Your task to perform on an android device: Search for seafood restaurants on Google Maps Image 0: 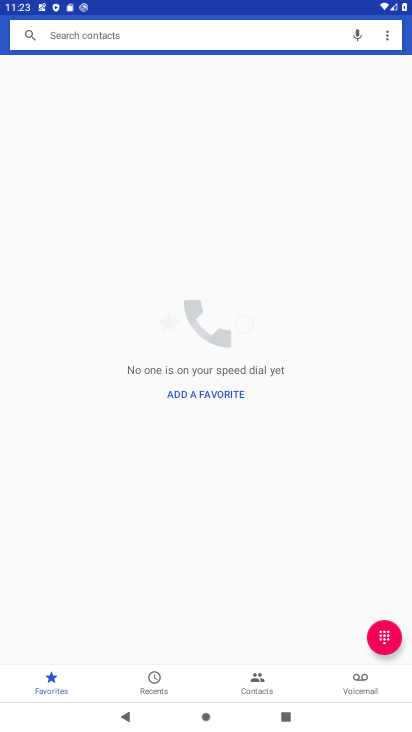
Step 0: press home button
Your task to perform on an android device: Search for seafood restaurants on Google Maps Image 1: 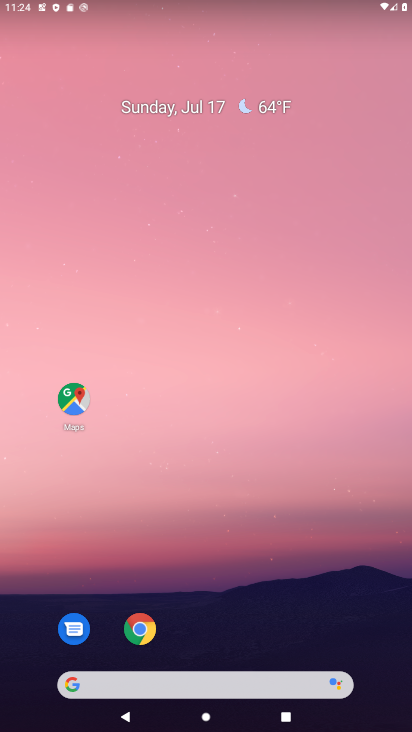
Step 1: click (77, 394)
Your task to perform on an android device: Search for seafood restaurants on Google Maps Image 2: 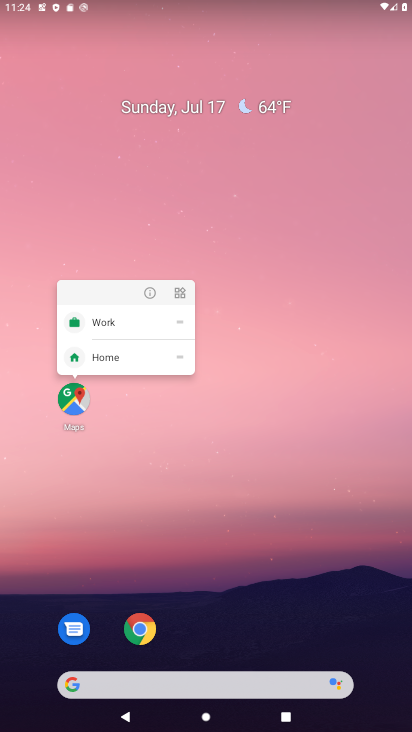
Step 2: click (77, 394)
Your task to perform on an android device: Search for seafood restaurants on Google Maps Image 3: 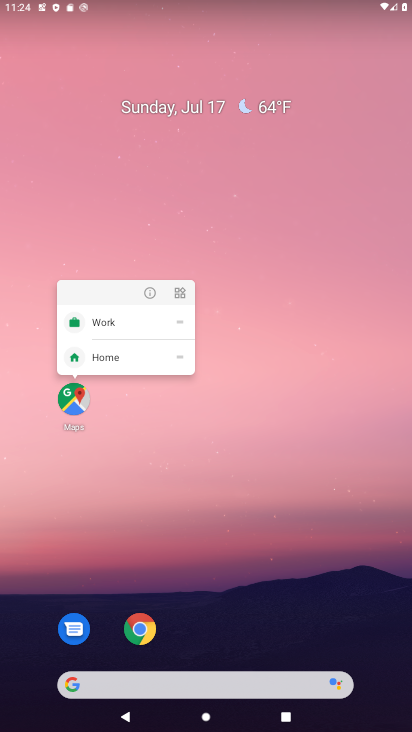
Step 3: click (77, 394)
Your task to perform on an android device: Search for seafood restaurants on Google Maps Image 4: 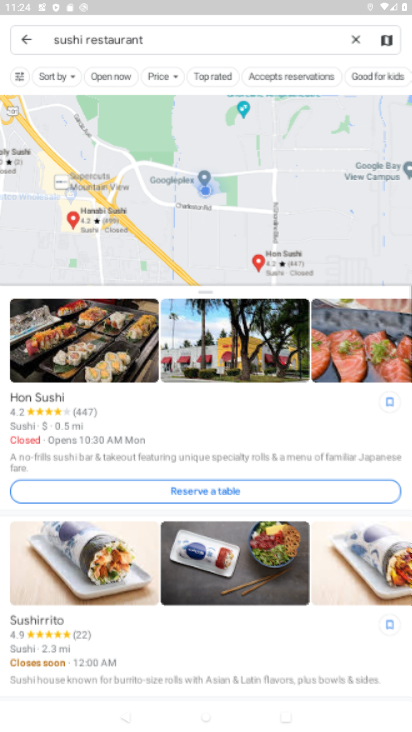
Step 4: click (359, 42)
Your task to perform on an android device: Search for seafood restaurants on Google Maps Image 5: 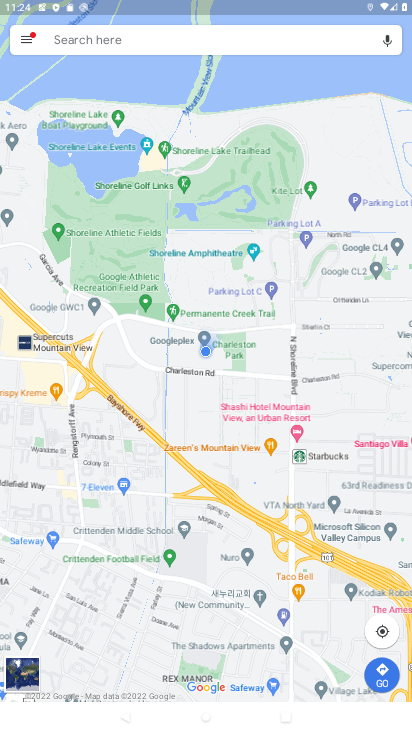
Step 5: click (229, 33)
Your task to perform on an android device: Search for seafood restaurants on Google Maps Image 6: 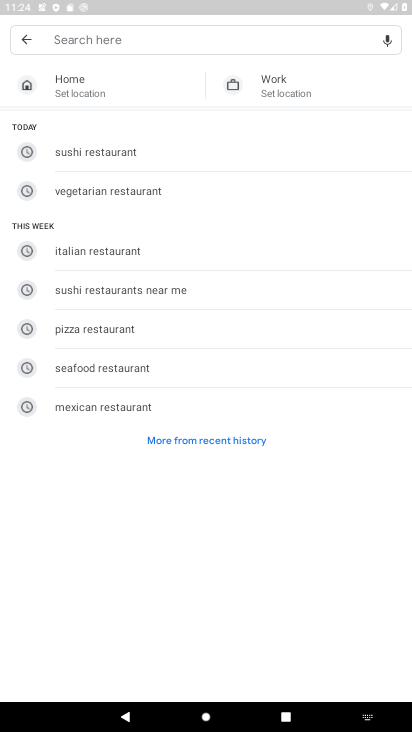
Step 6: type "seafood restaurants "
Your task to perform on an android device: Search for seafood restaurants on Google Maps Image 7: 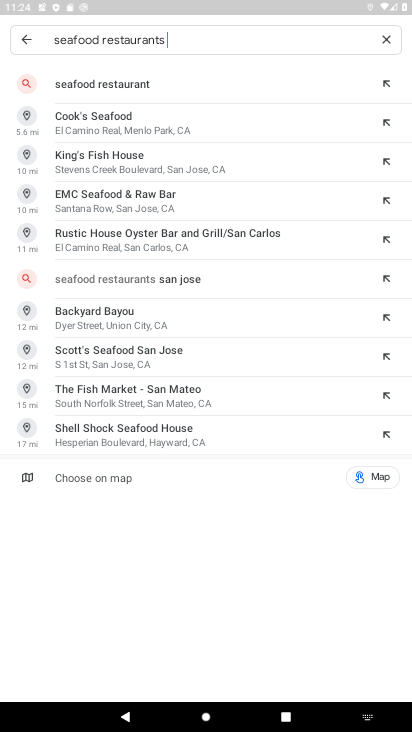
Step 7: click (169, 84)
Your task to perform on an android device: Search for seafood restaurants on Google Maps Image 8: 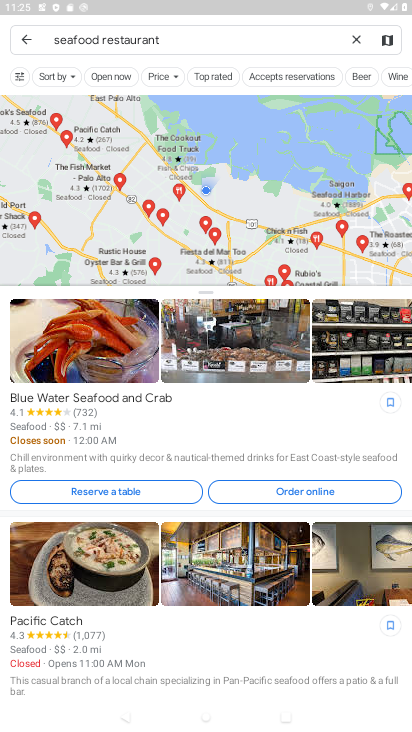
Step 8: task complete